Your task to perform on an android device: Open privacy settings Image 0: 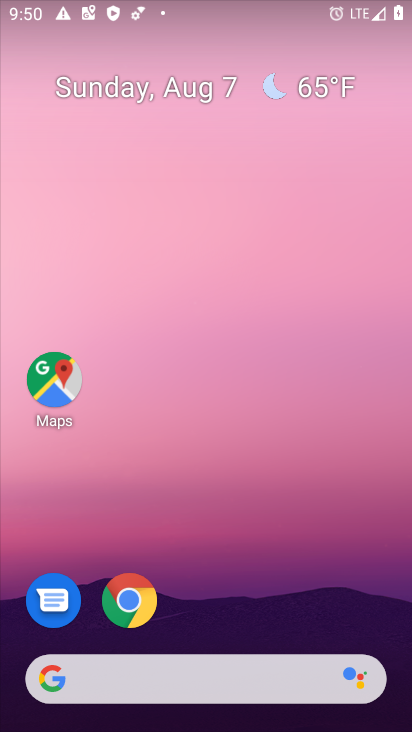
Step 0: drag from (174, 388) to (131, 150)
Your task to perform on an android device: Open privacy settings Image 1: 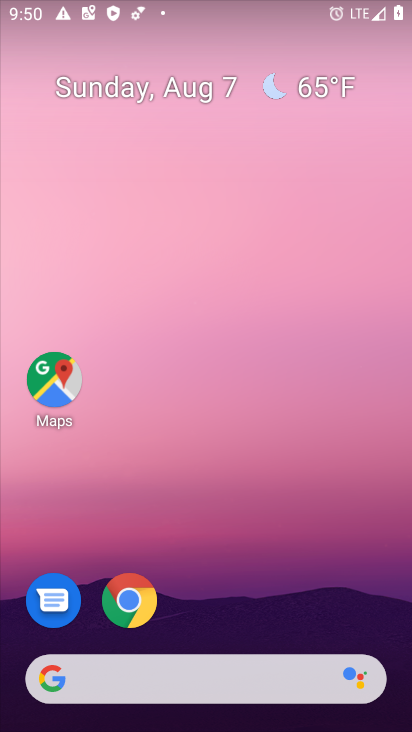
Step 1: drag from (207, 609) to (200, 35)
Your task to perform on an android device: Open privacy settings Image 2: 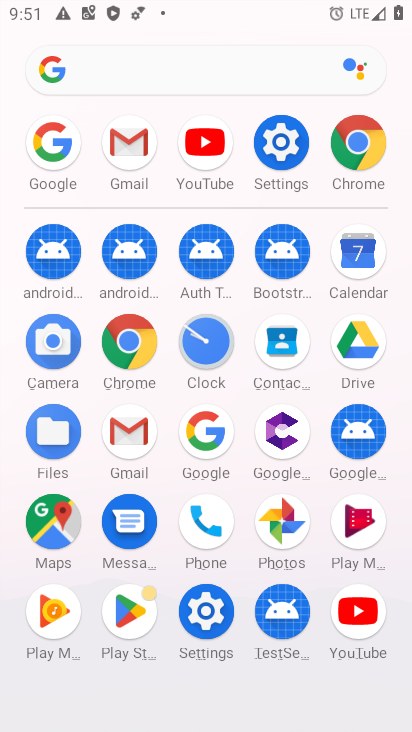
Step 2: click (283, 148)
Your task to perform on an android device: Open privacy settings Image 3: 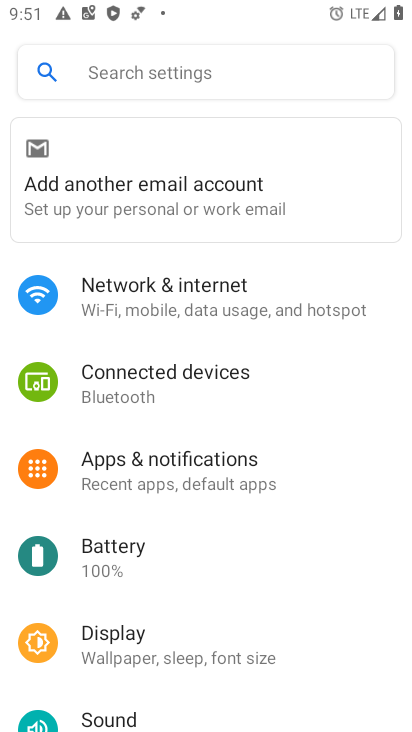
Step 3: drag from (112, 606) to (138, 306)
Your task to perform on an android device: Open privacy settings Image 4: 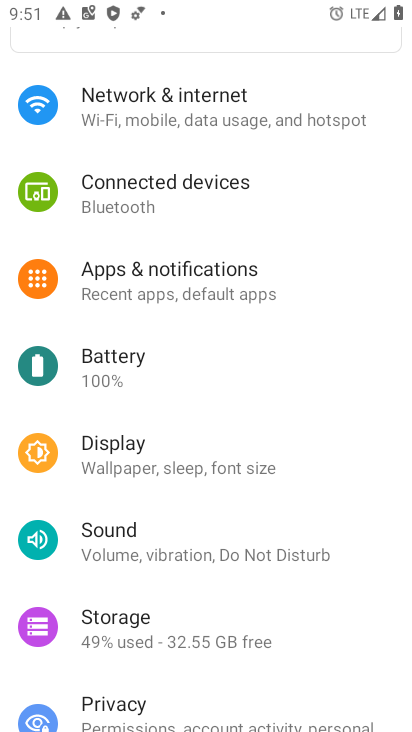
Step 4: click (139, 712)
Your task to perform on an android device: Open privacy settings Image 5: 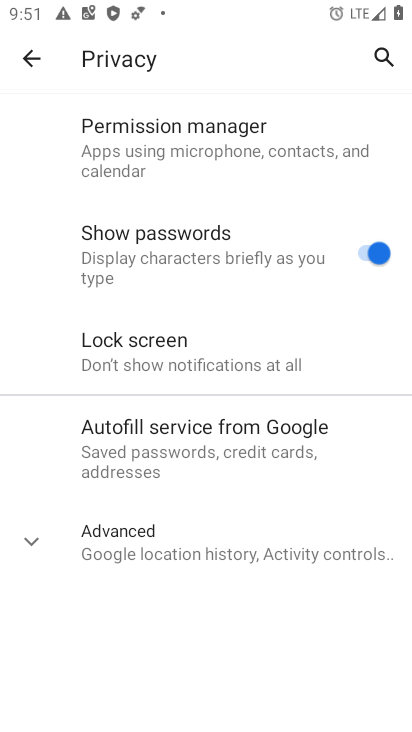
Step 5: task complete